Your task to perform on an android device: toggle data saver in the chrome app Image 0: 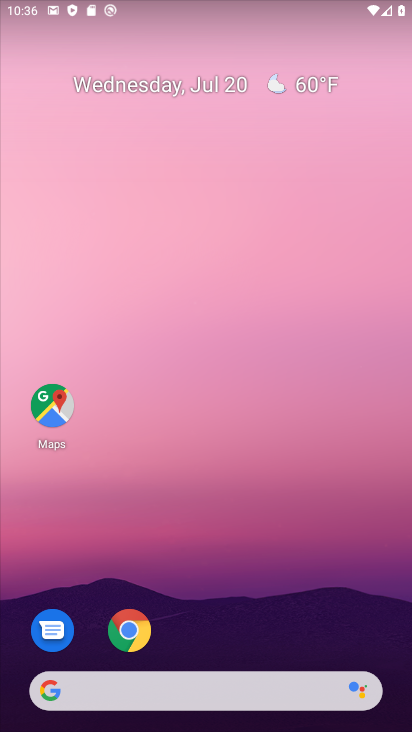
Step 0: click (127, 631)
Your task to perform on an android device: toggle data saver in the chrome app Image 1: 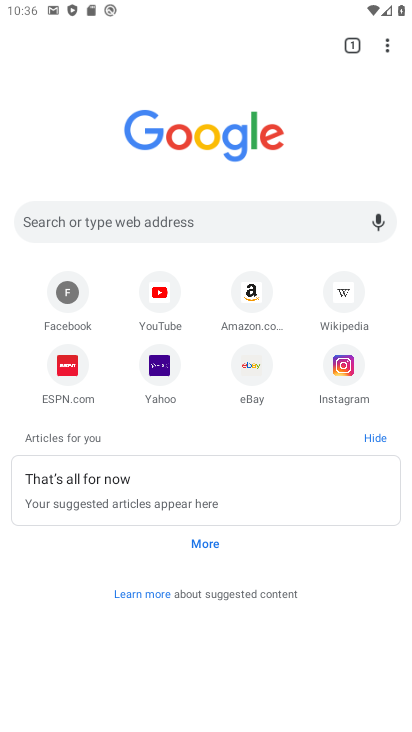
Step 1: click (385, 47)
Your task to perform on an android device: toggle data saver in the chrome app Image 2: 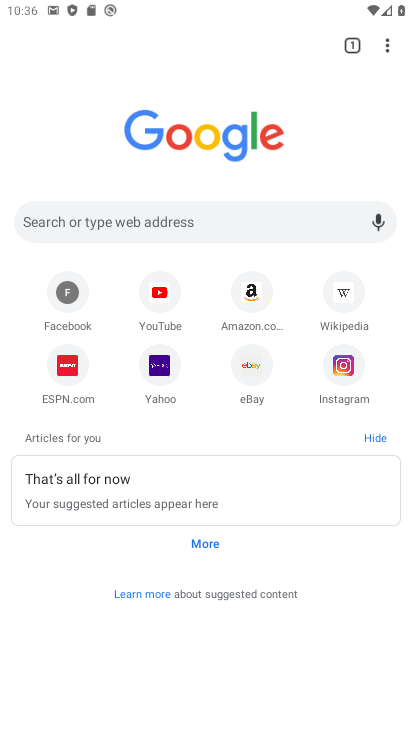
Step 2: click (385, 47)
Your task to perform on an android device: toggle data saver in the chrome app Image 3: 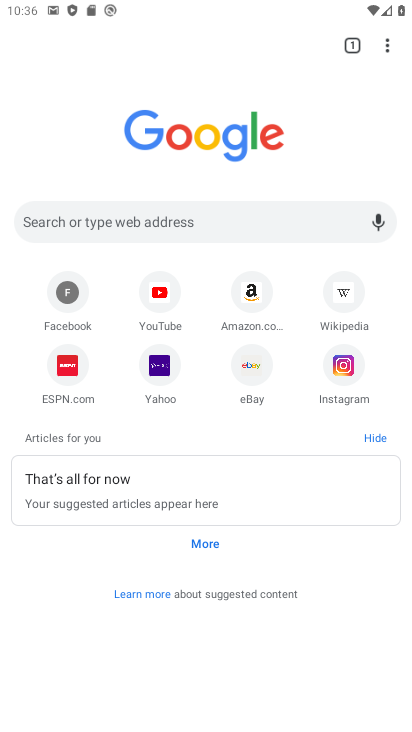
Step 3: click (385, 47)
Your task to perform on an android device: toggle data saver in the chrome app Image 4: 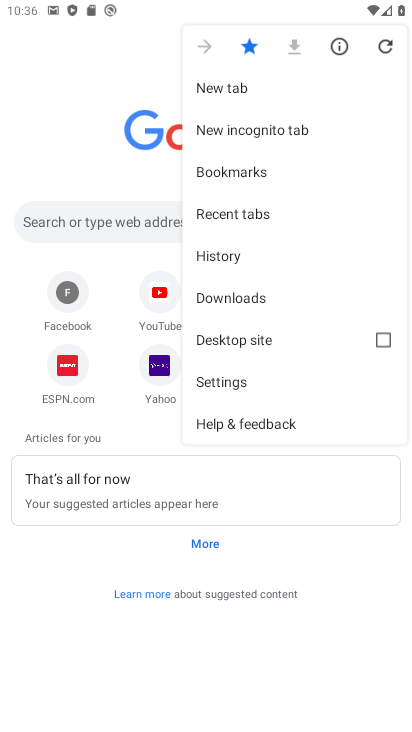
Step 4: click (208, 392)
Your task to perform on an android device: toggle data saver in the chrome app Image 5: 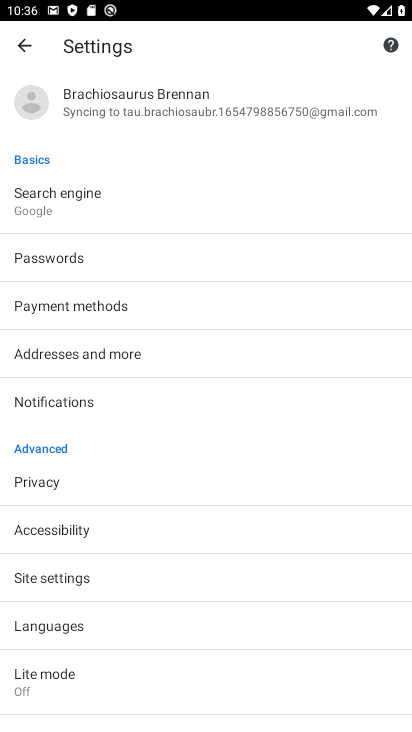
Step 5: click (63, 672)
Your task to perform on an android device: toggle data saver in the chrome app Image 6: 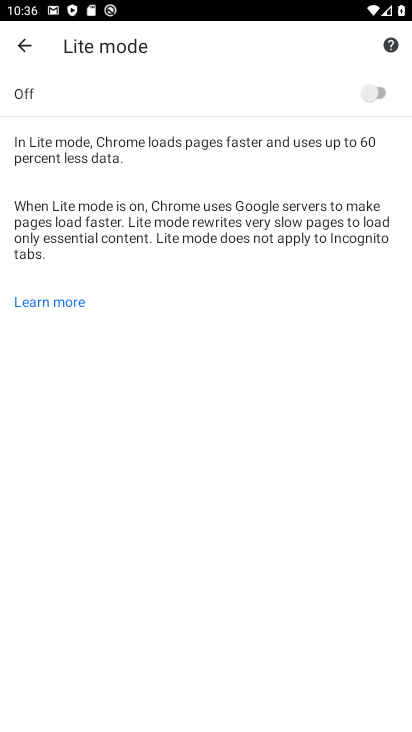
Step 6: click (378, 94)
Your task to perform on an android device: toggle data saver in the chrome app Image 7: 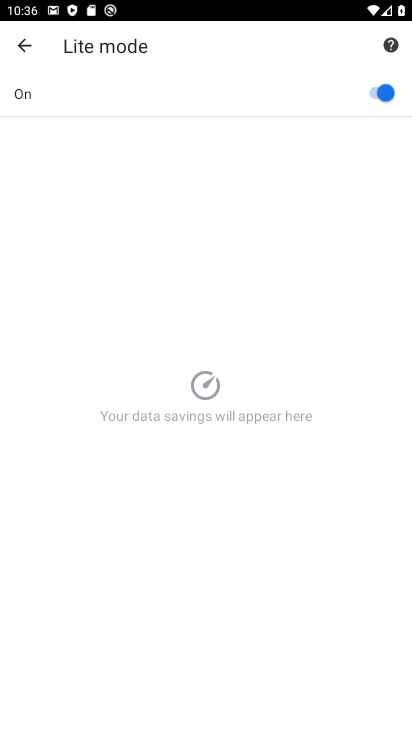
Step 7: task complete